Your task to perform on an android device: Open Maps and search for coffee Image 0: 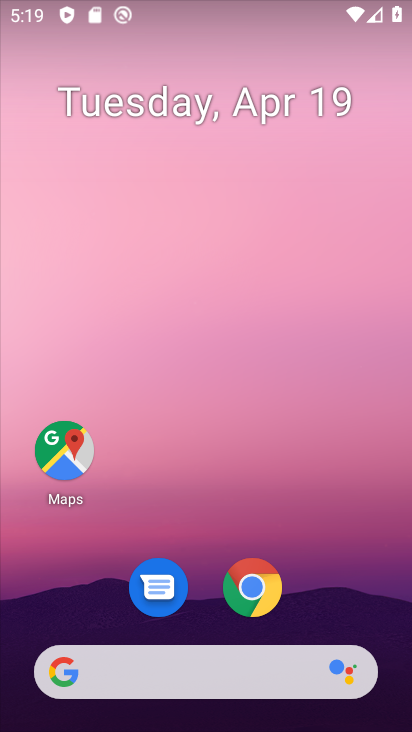
Step 0: click (48, 449)
Your task to perform on an android device: Open Maps and search for coffee Image 1: 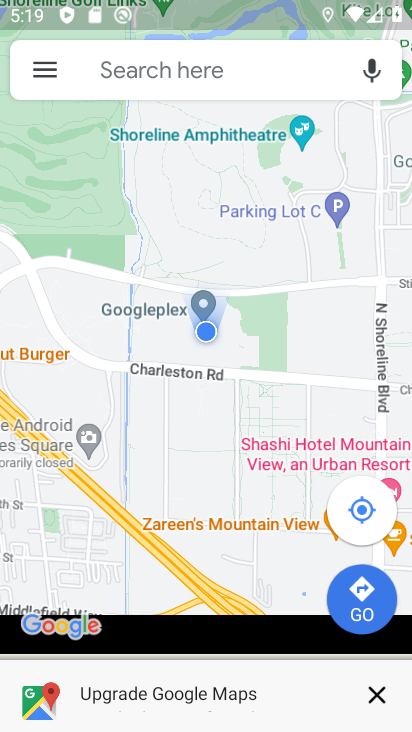
Step 1: click (175, 65)
Your task to perform on an android device: Open Maps and search for coffee Image 2: 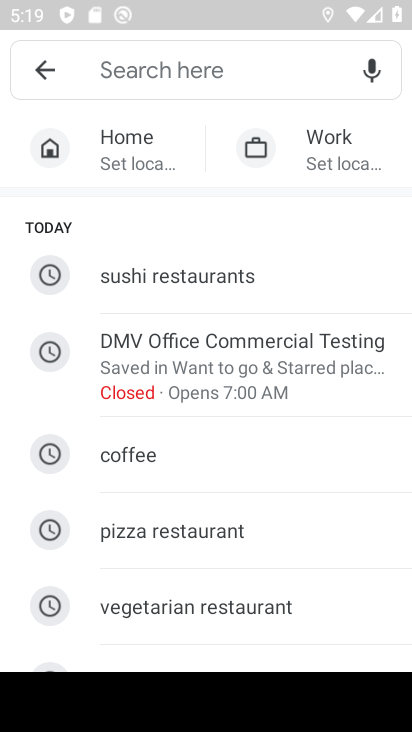
Step 2: click (187, 454)
Your task to perform on an android device: Open Maps and search for coffee Image 3: 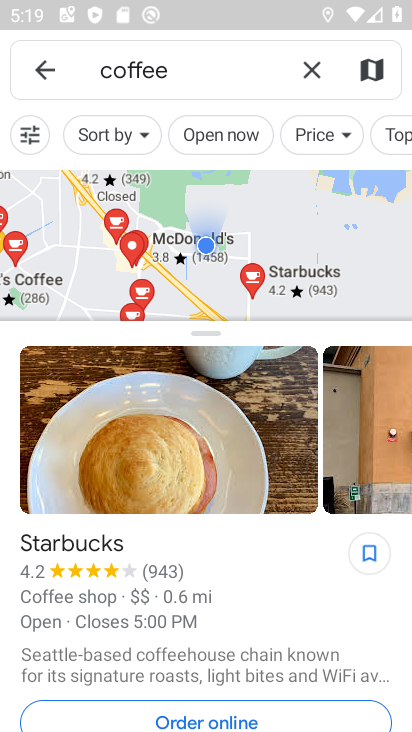
Step 3: task complete